Your task to perform on an android device: Open Maps and search for coffee Image 0: 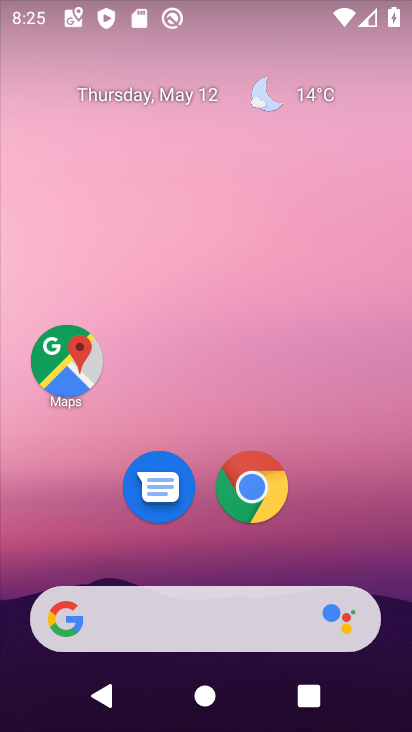
Step 0: click (48, 365)
Your task to perform on an android device: Open Maps and search for coffee Image 1: 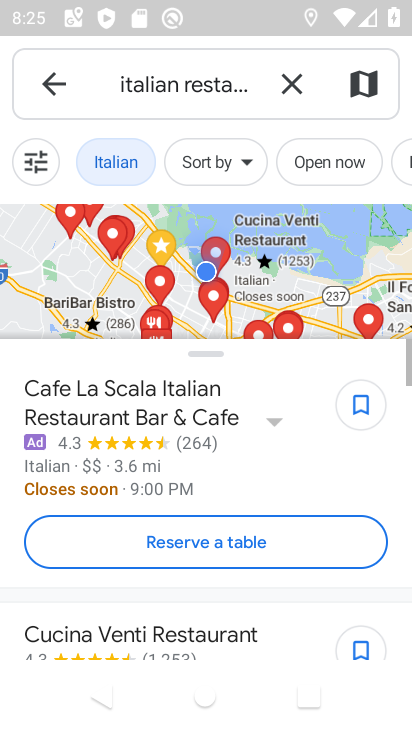
Step 1: click (288, 92)
Your task to perform on an android device: Open Maps and search for coffee Image 2: 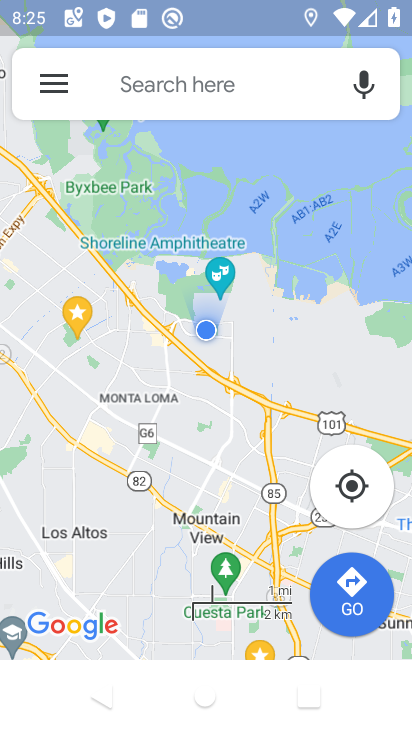
Step 2: click (123, 91)
Your task to perform on an android device: Open Maps and search for coffee Image 3: 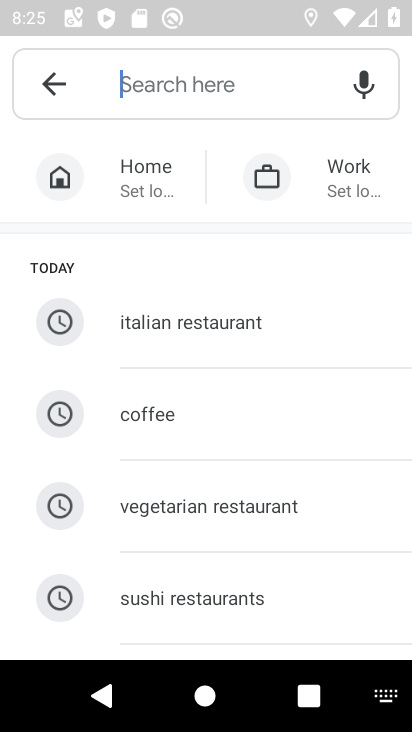
Step 3: type "coffee"
Your task to perform on an android device: Open Maps and search for coffee Image 4: 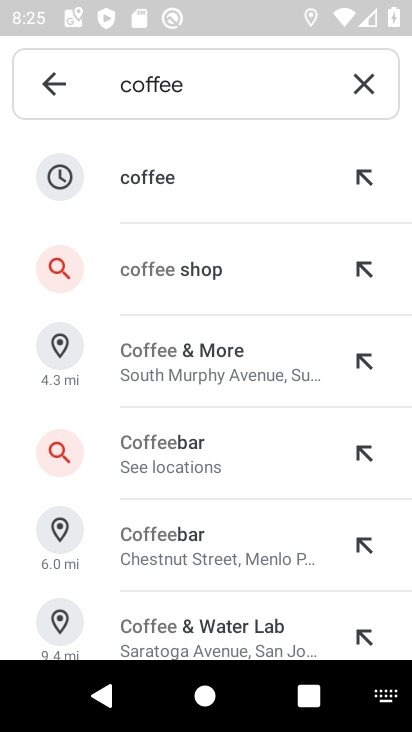
Step 4: click (160, 179)
Your task to perform on an android device: Open Maps and search for coffee Image 5: 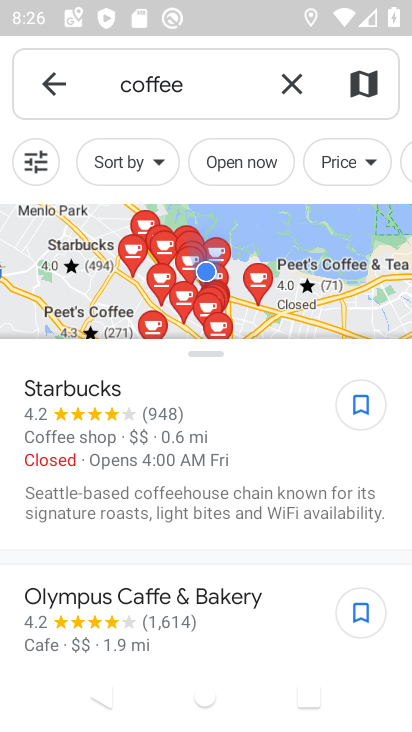
Step 5: task complete